Your task to perform on an android device: remove spam from my inbox in the gmail app Image 0: 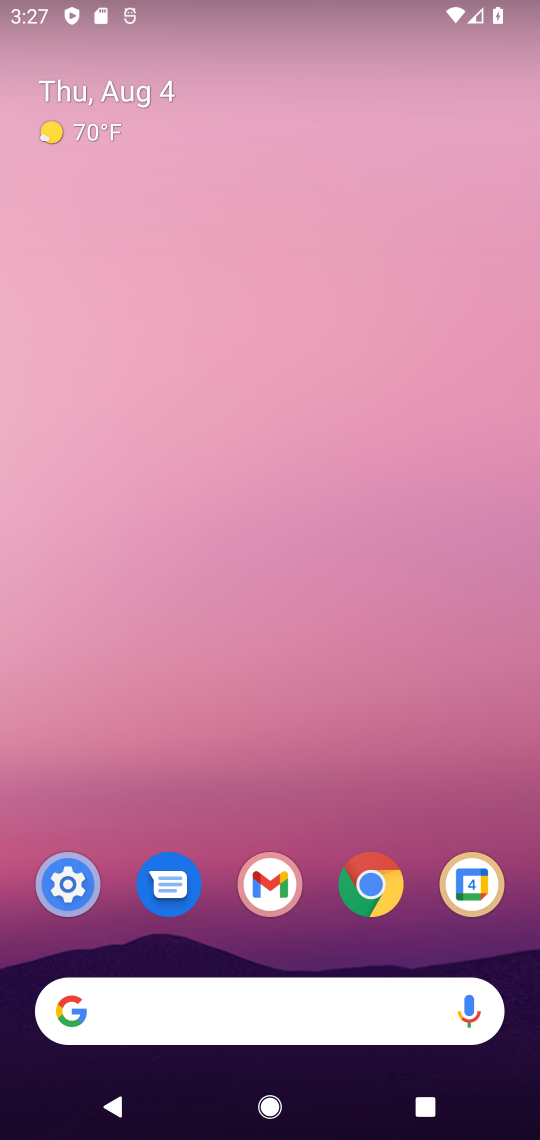
Step 0: drag from (310, 975) to (324, 174)
Your task to perform on an android device: remove spam from my inbox in the gmail app Image 1: 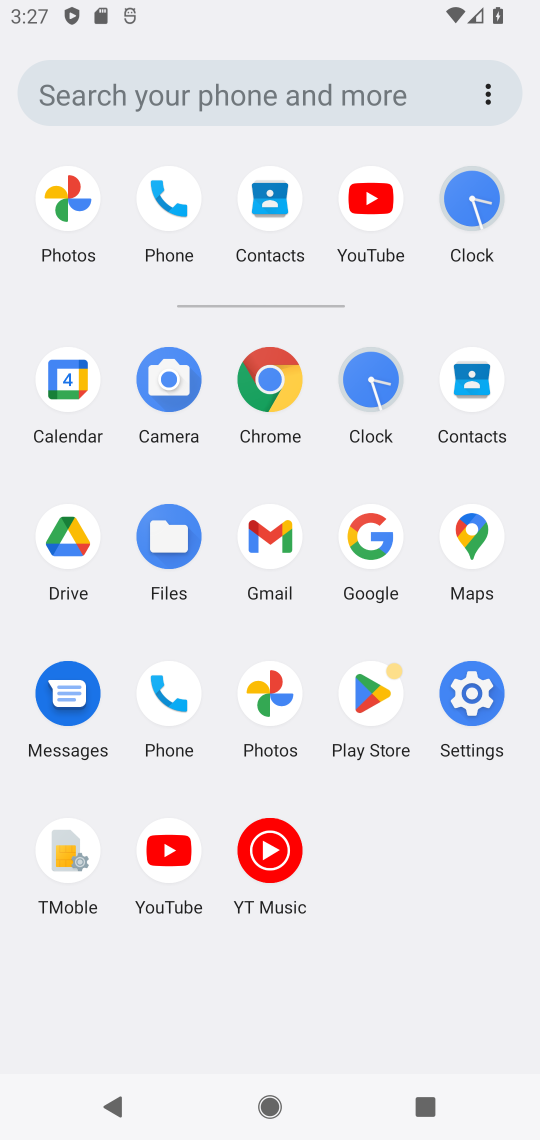
Step 1: click (281, 546)
Your task to perform on an android device: remove spam from my inbox in the gmail app Image 2: 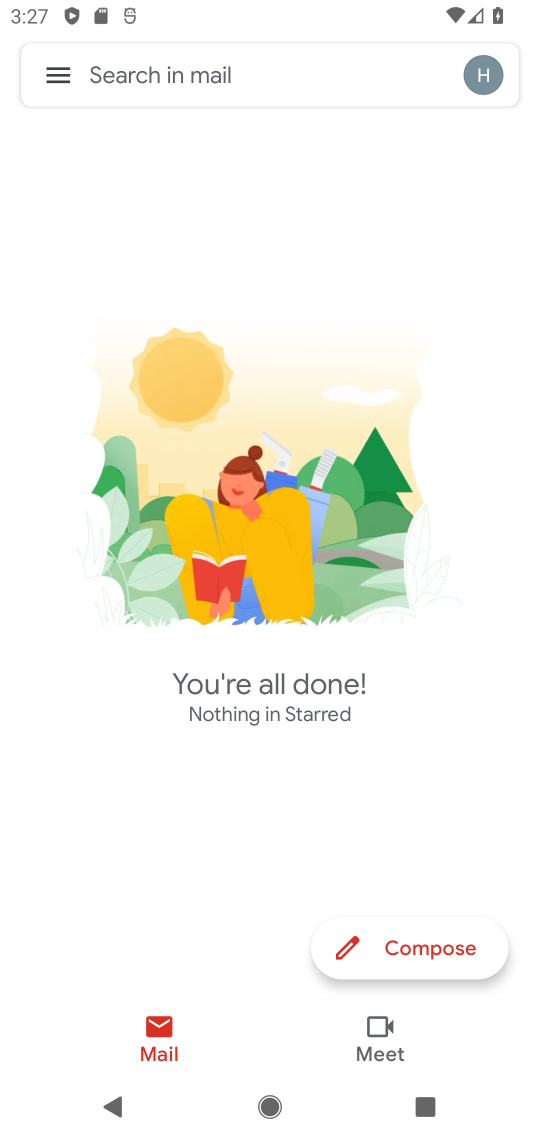
Step 2: click (39, 55)
Your task to perform on an android device: remove spam from my inbox in the gmail app Image 3: 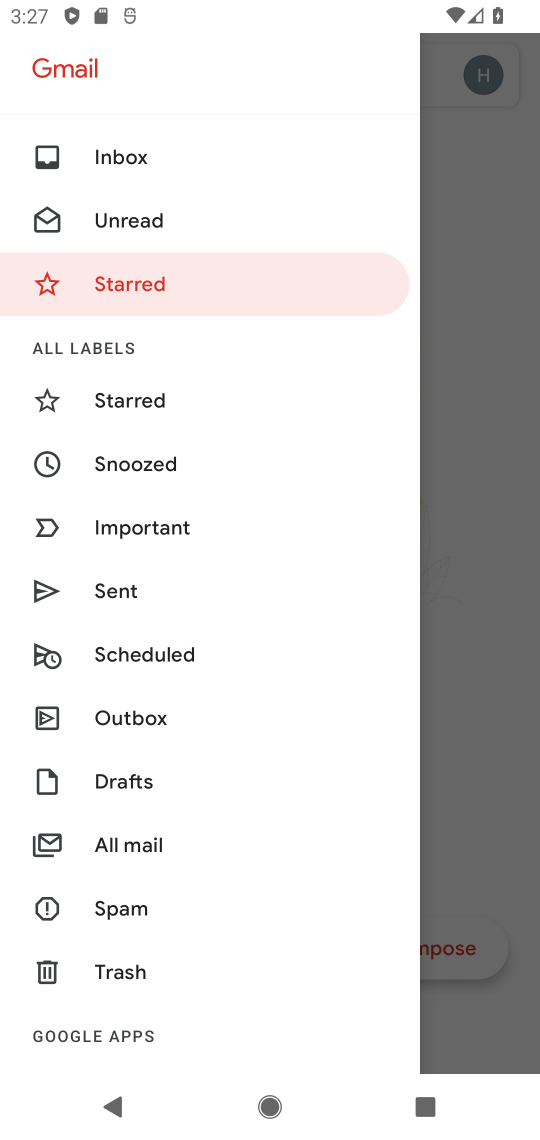
Step 3: click (134, 920)
Your task to perform on an android device: remove spam from my inbox in the gmail app Image 4: 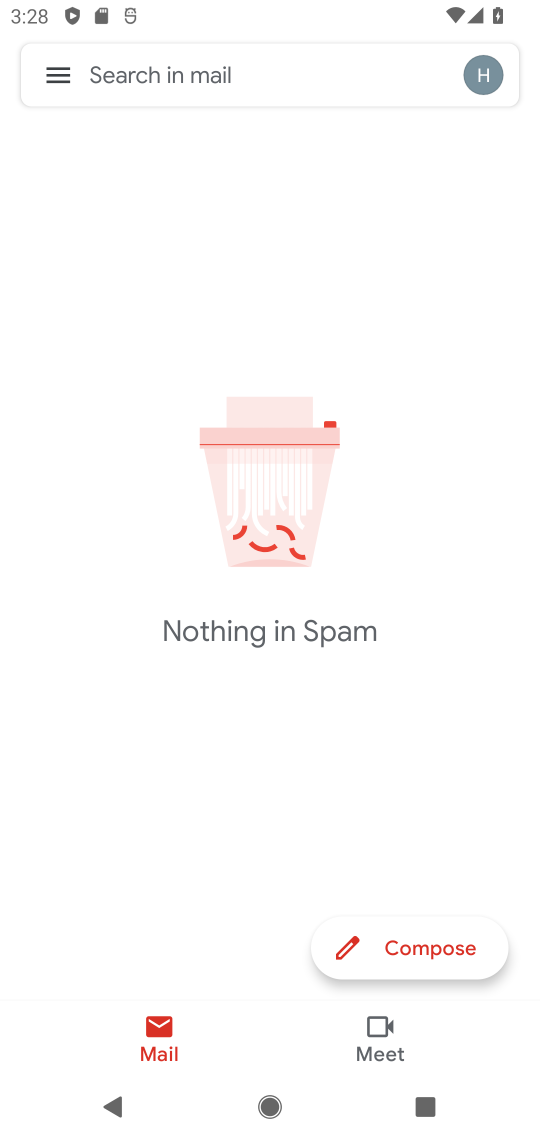
Step 4: task complete